Your task to perform on an android device: Show me recent news Image 0: 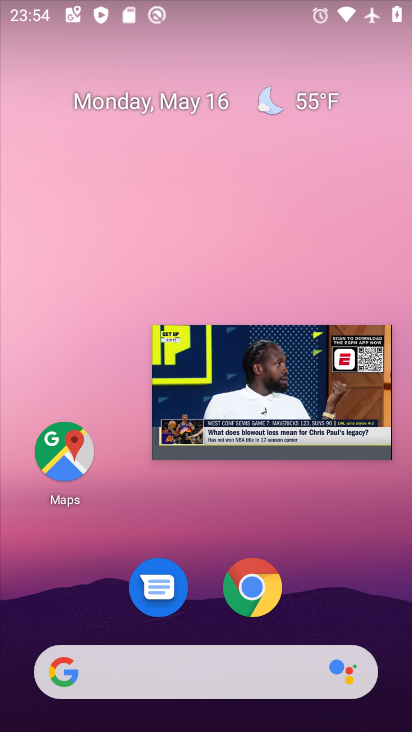
Step 0: click (362, 353)
Your task to perform on an android device: Show me recent news Image 1: 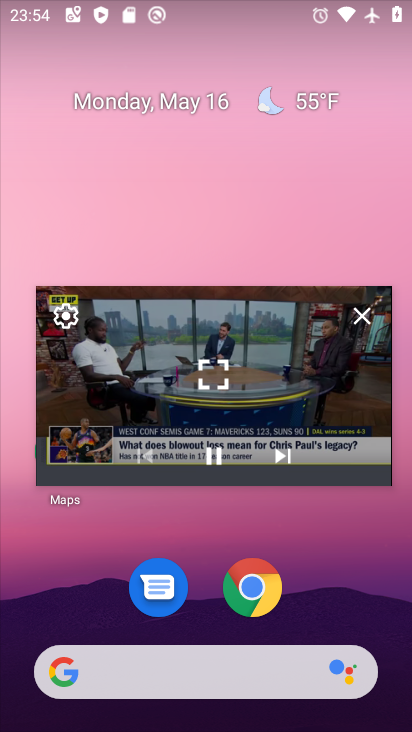
Step 1: click (366, 311)
Your task to perform on an android device: Show me recent news Image 2: 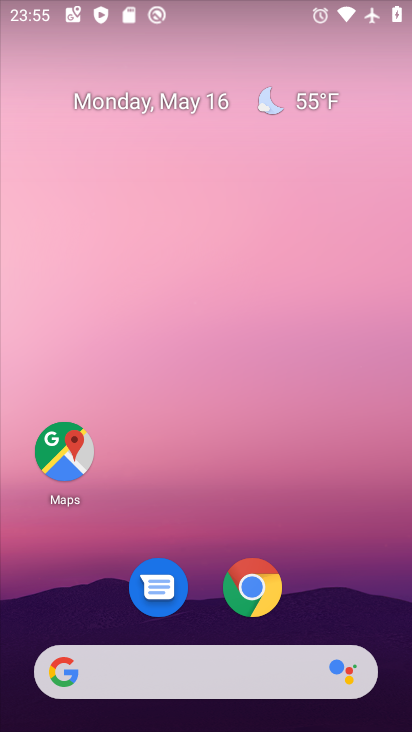
Step 2: drag from (352, 577) to (270, 9)
Your task to perform on an android device: Show me recent news Image 3: 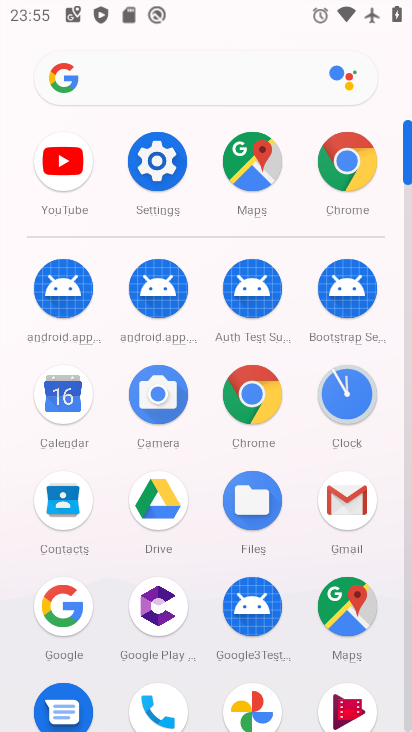
Step 3: drag from (4, 597) to (14, 410)
Your task to perform on an android device: Show me recent news Image 4: 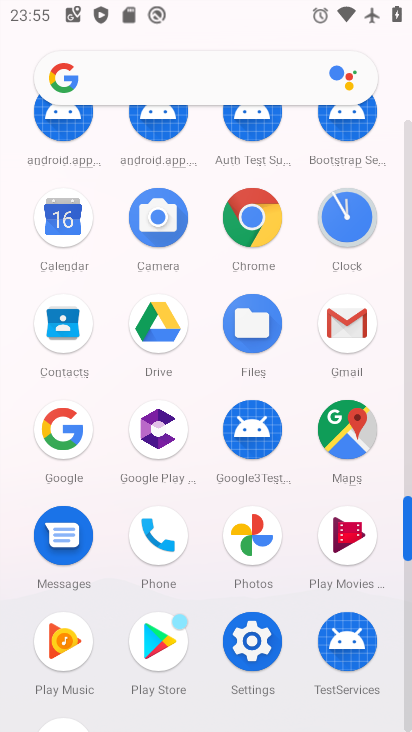
Step 4: click (240, 222)
Your task to perform on an android device: Show me recent news Image 5: 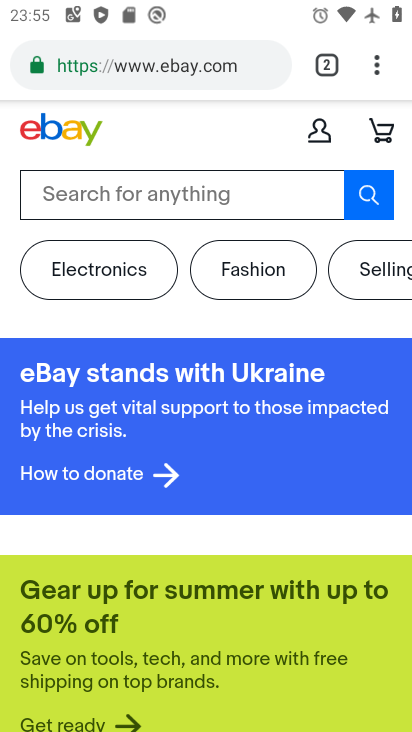
Step 5: click (203, 67)
Your task to perform on an android device: Show me recent news Image 6: 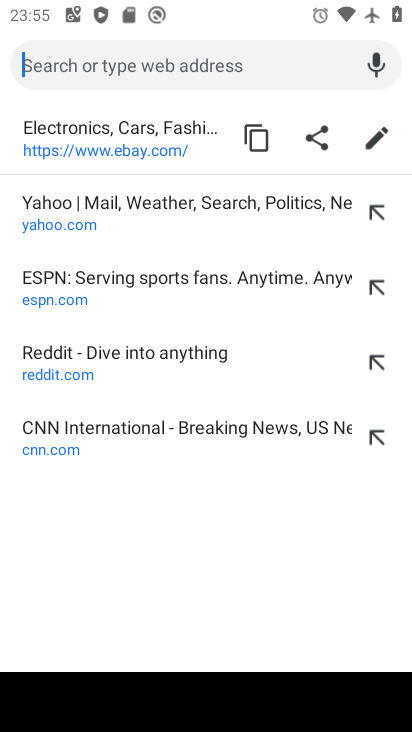
Step 6: type "Show me recent news"
Your task to perform on an android device: Show me recent news Image 7: 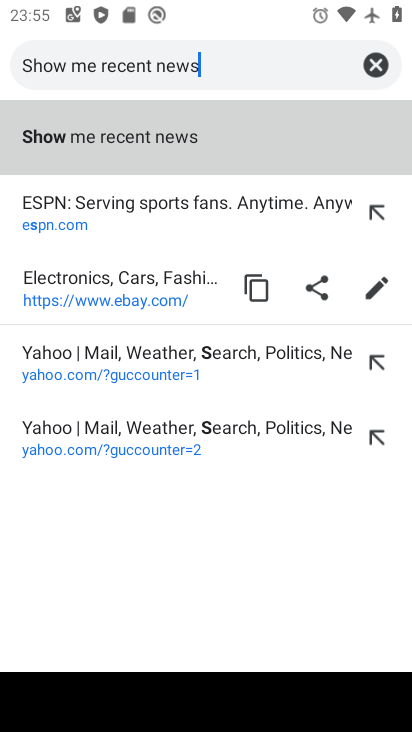
Step 7: type ""
Your task to perform on an android device: Show me recent news Image 8: 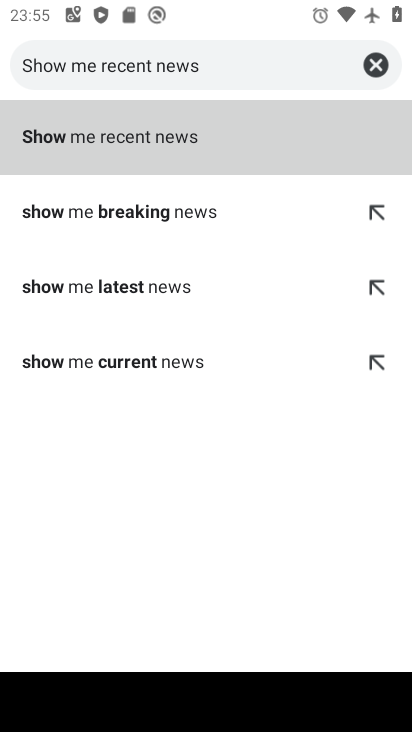
Step 8: click (183, 131)
Your task to perform on an android device: Show me recent news Image 9: 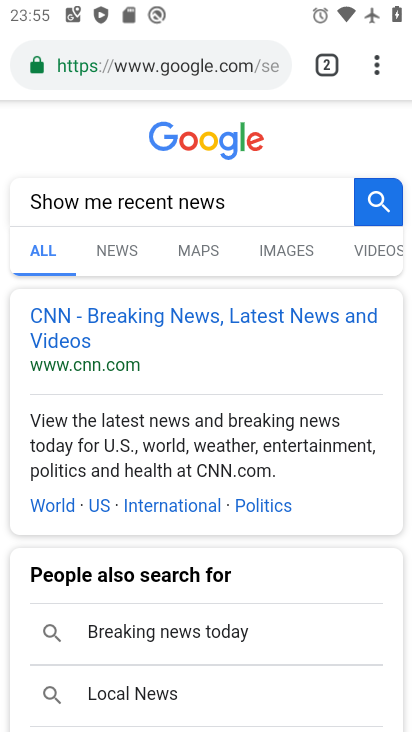
Step 9: click (123, 258)
Your task to perform on an android device: Show me recent news Image 10: 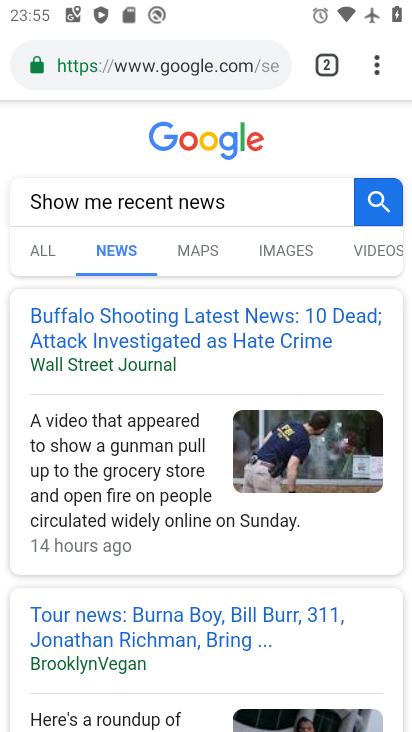
Step 10: task complete